Your task to perform on an android device: Open calendar and show me the fourth week of next month Image 0: 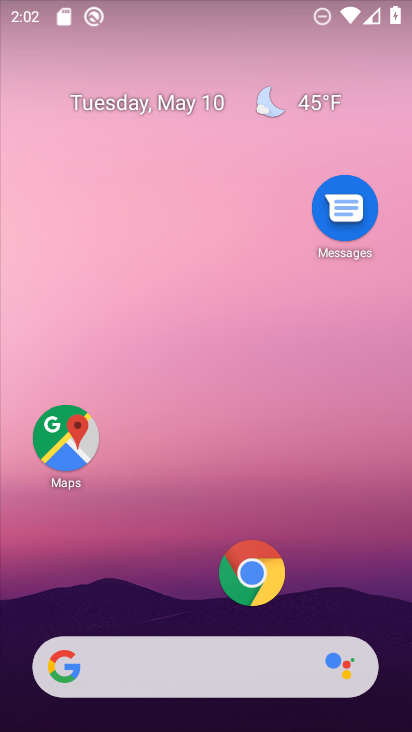
Step 0: drag from (216, 572) to (260, 263)
Your task to perform on an android device: Open calendar and show me the fourth week of next month Image 1: 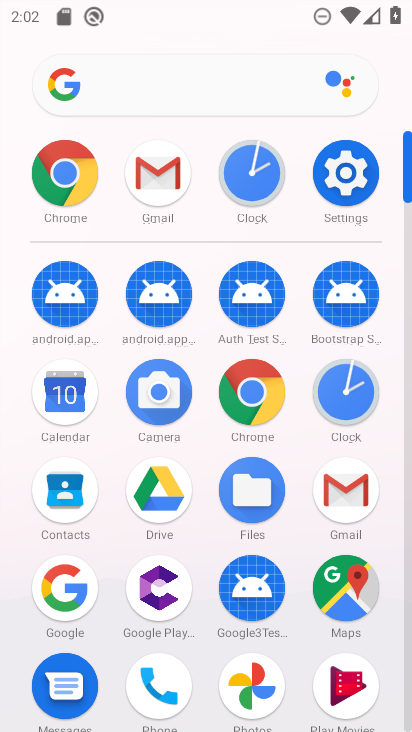
Step 1: drag from (215, 692) to (207, 79)
Your task to perform on an android device: Open calendar and show me the fourth week of next month Image 2: 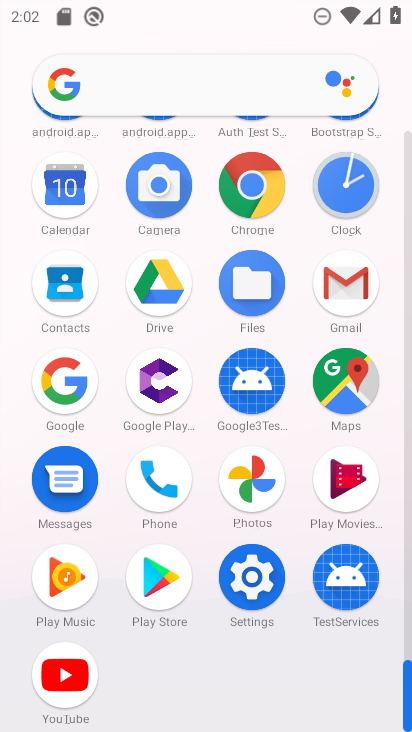
Step 2: click (52, 188)
Your task to perform on an android device: Open calendar and show me the fourth week of next month Image 3: 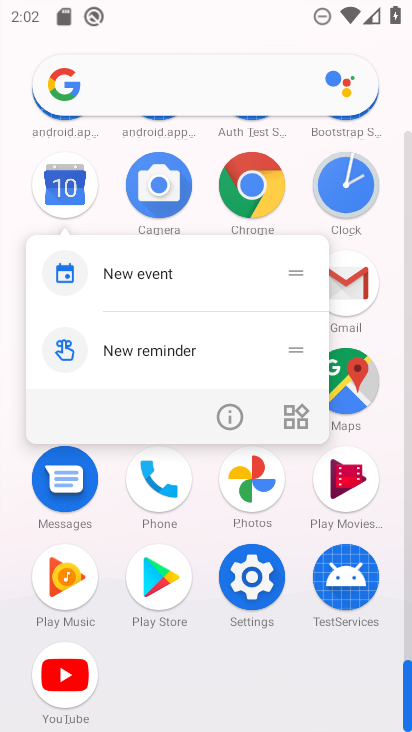
Step 3: click (228, 415)
Your task to perform on an android device: Open calendar and show me the fourth week of next month Image 4: 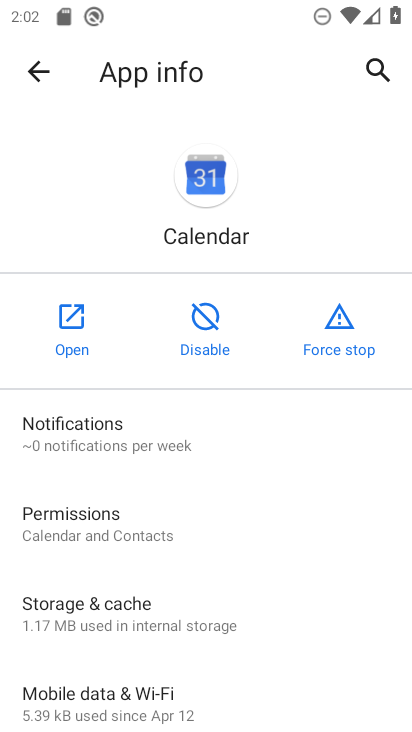
Step 4: click (72, 320)
Your task to perform on an android device: Open calendar and show me the fourth week of next month Image 5: 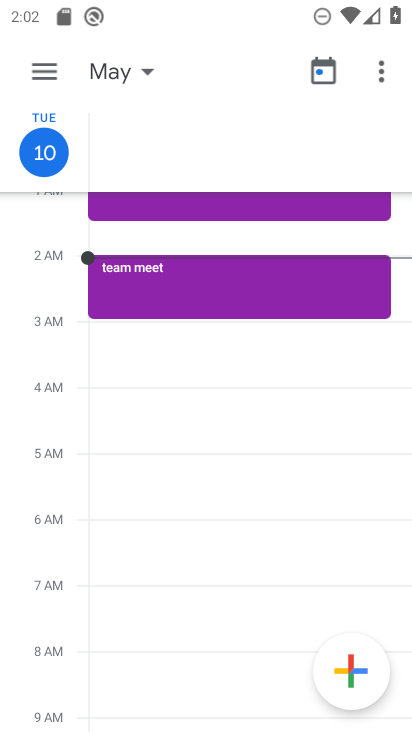
Step 5: click (131, 79)
Your task to perform on an android device: Open calendar and show me the fourth week of next month Image 6: 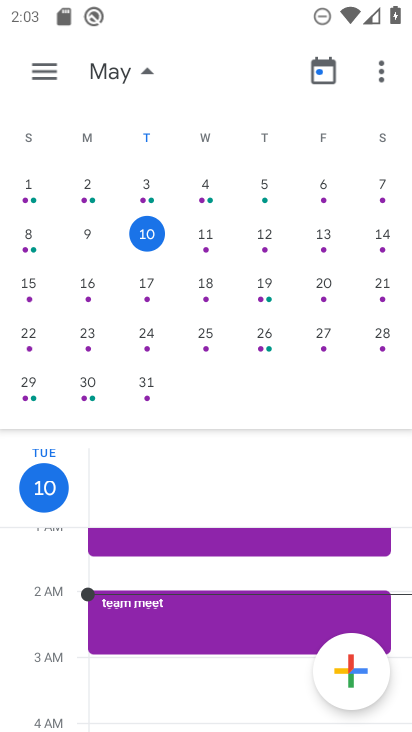
Step 6: drag from (216, 521) to (256, 259)
Your task to perform on an android device: Open calendar and show me the fourth week of next month Image 7: 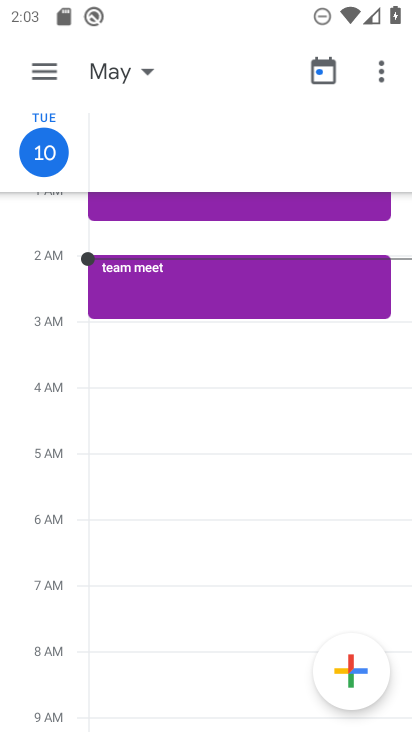
Step 7: drag from (199, 246) to (304, 730)
Your task to perform on an android device: Open calendar and show me the fourth week of next month Image 8: 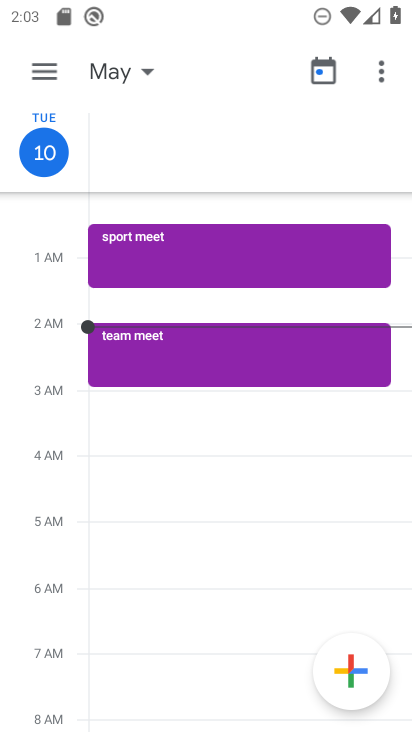
Step 8: click (129, 82)
Your task to perform on an android device: Open calendar and show me the fourth week of next month Image 9: 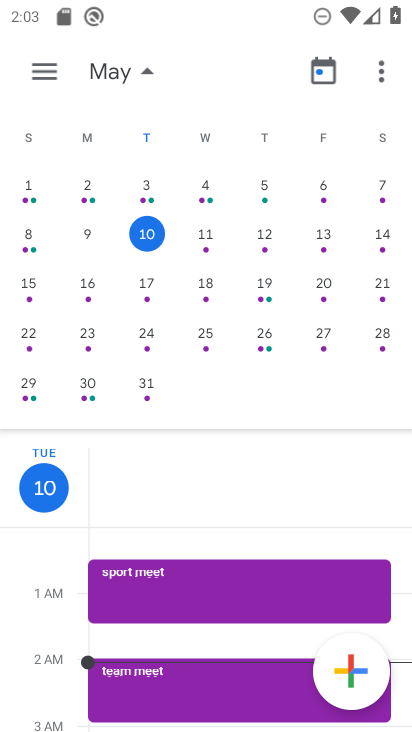
Step 9: drag from (287, 240) to (48, 253)
Your task to perform on an android device: Open calendar and show me the fourth week of next month Image 10: 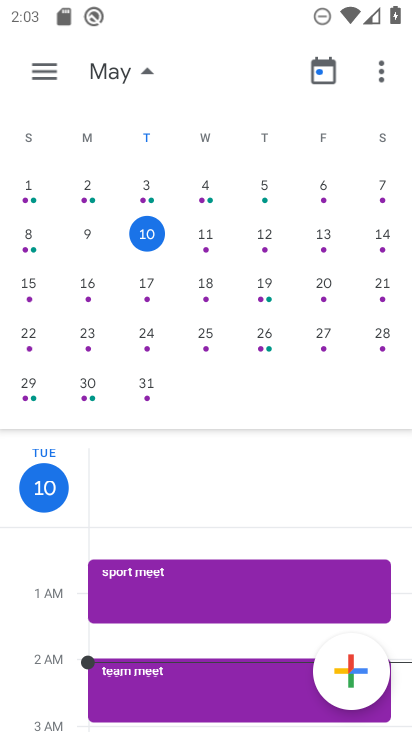
Step 10: drag from (342, 257) to (103, 283)
Your task to perform on an android device: Open calendar and show me the fourth week of next month Image 11: 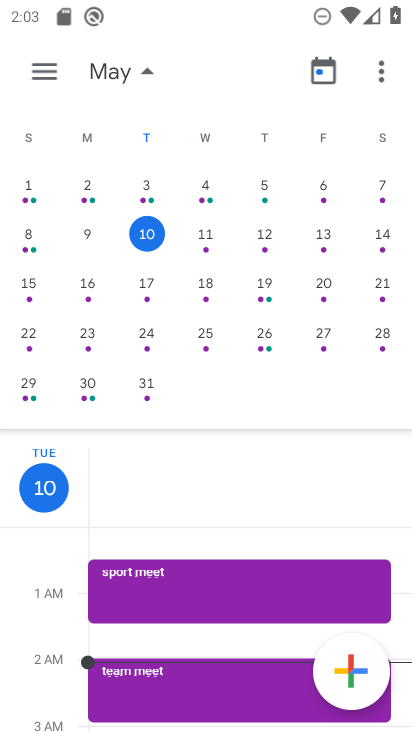
Step 11: drag from (320, 288) to (25, 387)
Your task to perform on an android device: Open calendar and show me the fourth week of next month Image 12: 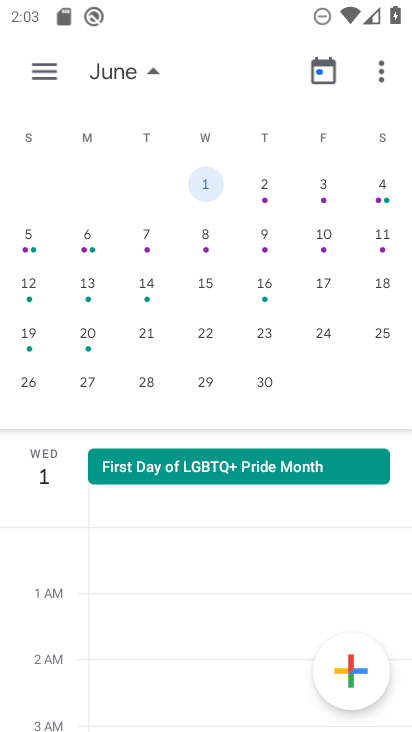
Step 12: click (203, 326)
Your task to perform on an android device: Open calendar and show me the fourth week of next month Image 13: 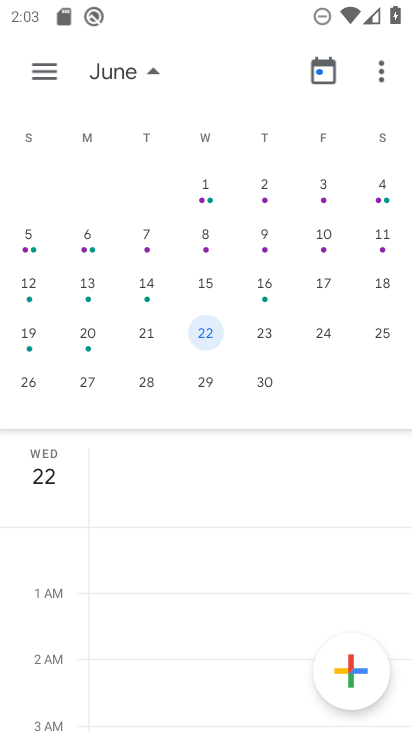
Step 13: task complete